Your task to perform on an android device: Find coffee shops on Maps Image 0: 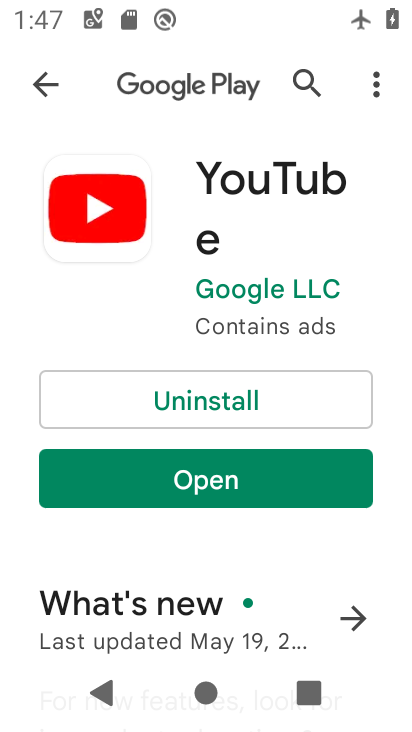
Step 0: press home button
Your task to perform on an android device: Find coffee shops on Maps Image 1: 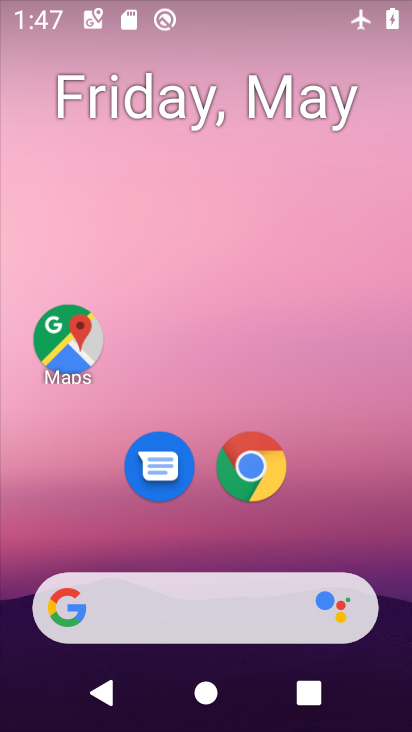
Step 1: drag from (316, 531) to (395, 28)
Your task to perform on an android device: Find coffee shops on Maps Image 2: 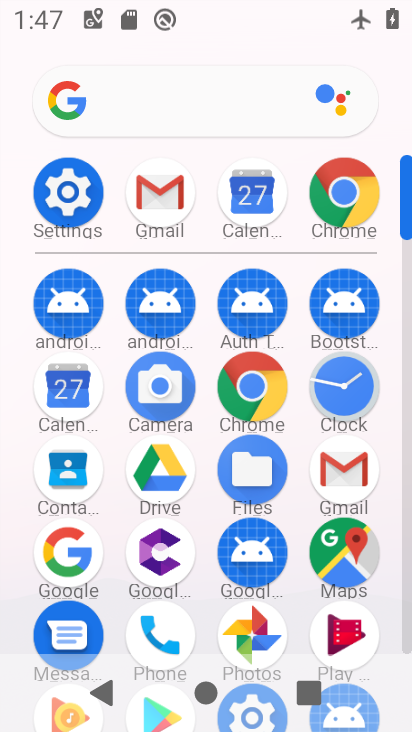
Step 2: click (336, 568)
Your task to perform on an android device: Find coffee shops on Maps Image 3: 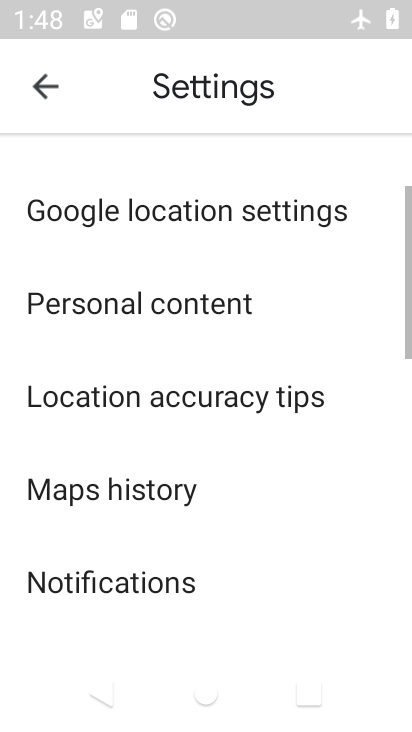
Step 3: click (47, 96)
Your task to perform on an android device: Find coffee shops on Maps Image 4: 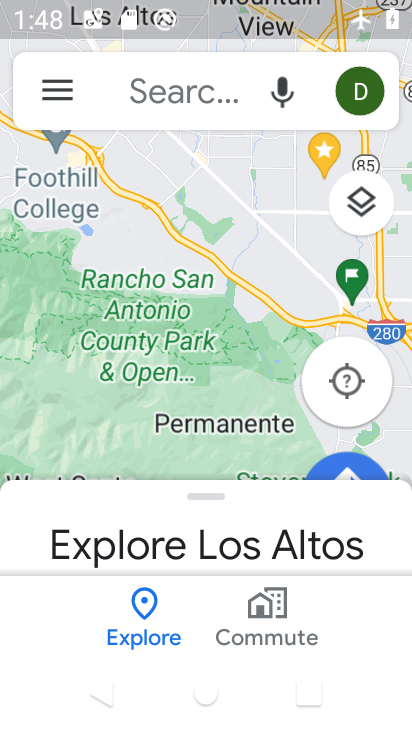
Step 4: click (150, 93)
Your task to perform on an android device: Find coffee shops on Maps Image 5: 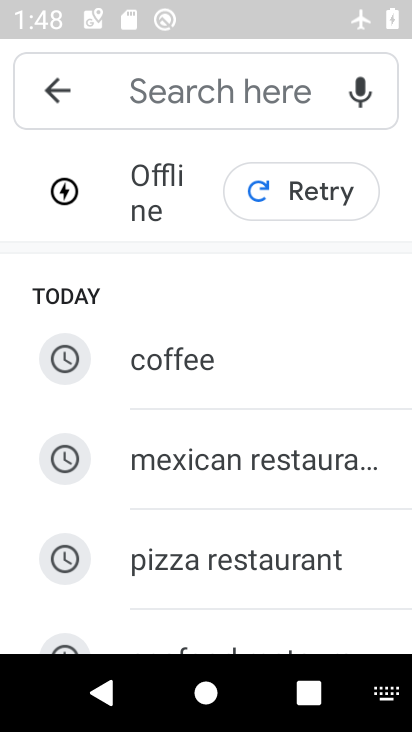
Step 5: click (201, 365)
Your task to perform on an android device: Find coffee shops on Maps Image 6: 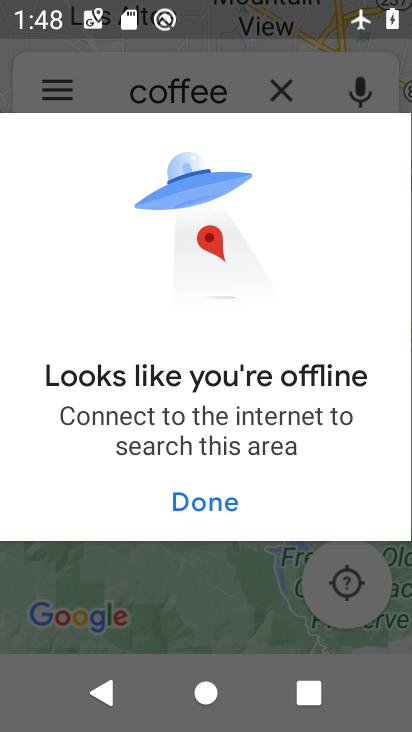
Step 6: task complete